Your task to perform on an android device: Go to sound settings Image 0: 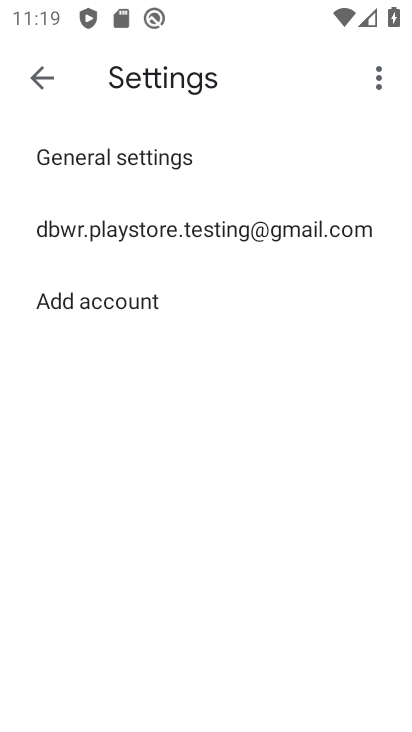
Step 0: press home button
Your task to perform on an android device: Go to sound settings Image 1: 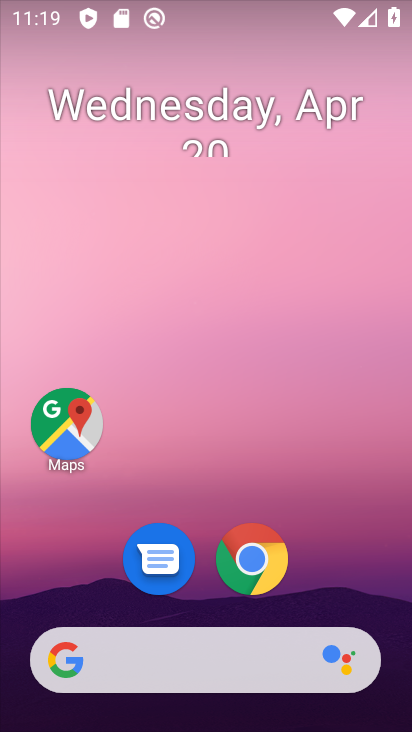
Step 1: drag from (332, 543) to (259, 5)
Your task to perform on an android device: Go to sound settings Image 2: 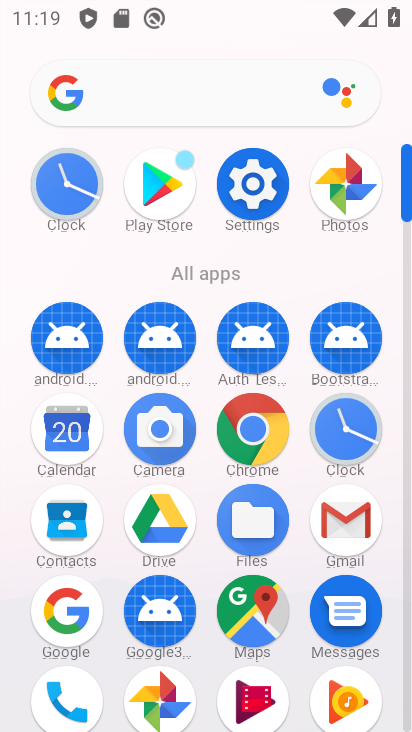
Step 2: click (248, 188)
Your task to perform on an android device: Go to sound settings Image 3: 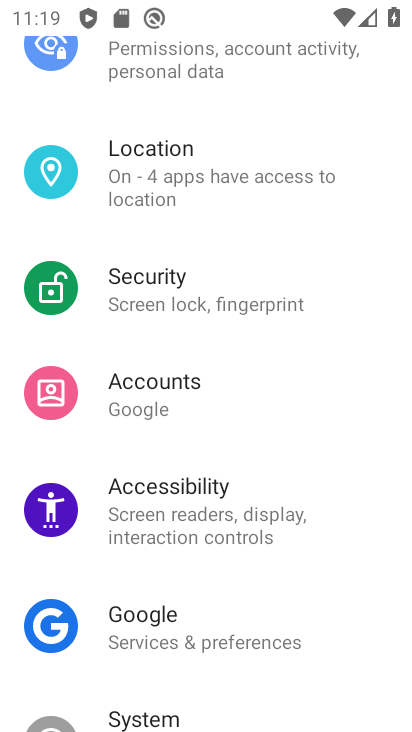
Step 3: drag from (200, 361) to (190, 602)
Your task to perform on an android device: Go to sound settings Image 4: 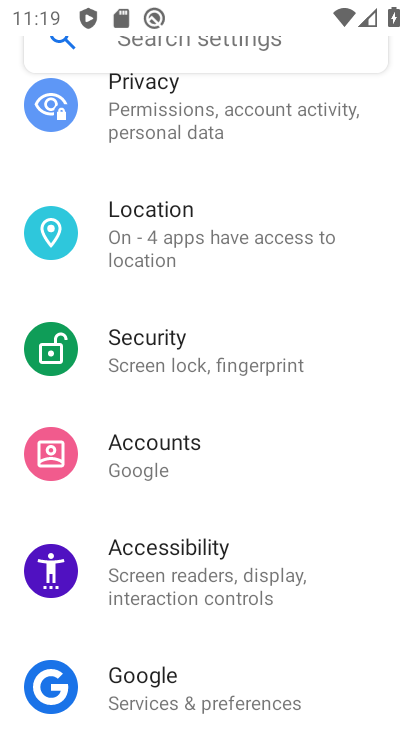
Step 4: drag from (226, 233) to (186, 651)
Your task to perform on an android device: Go to sound settings Image 5: 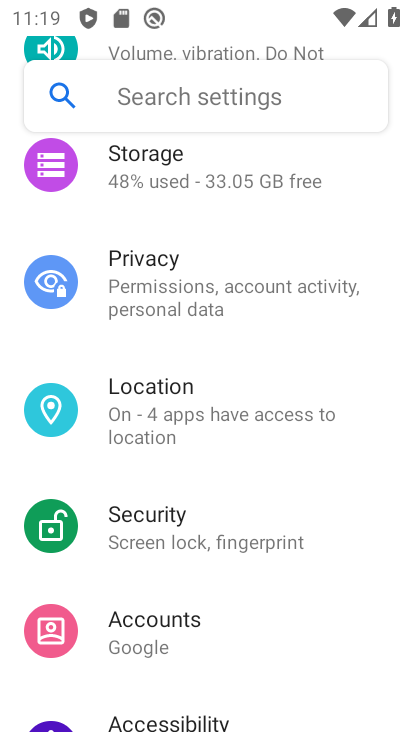
Step 5: drag from (232, 231) to (167, 719)
Your task to perform on an android device: Go to sound settings Image 6: 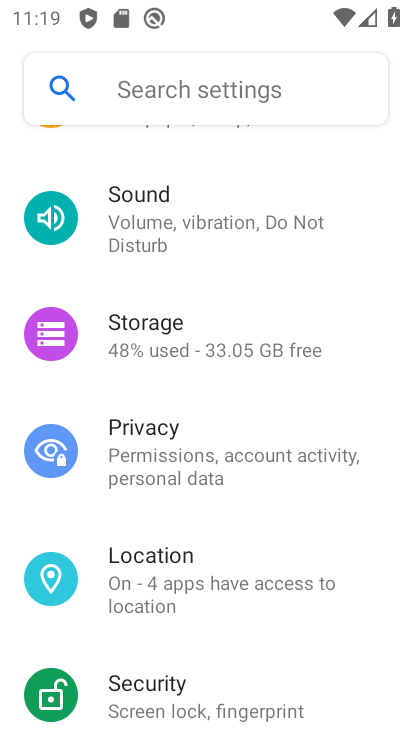
Step 6: click (143, 192)
Your task to perform on an android device: Go to sound settings Image 7: 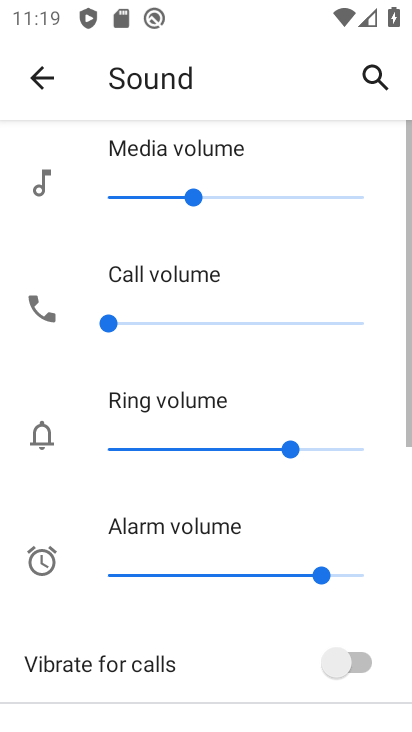
Step 7: task complete